Your task to perform on an android device: Open Yahoo.com Image 0: 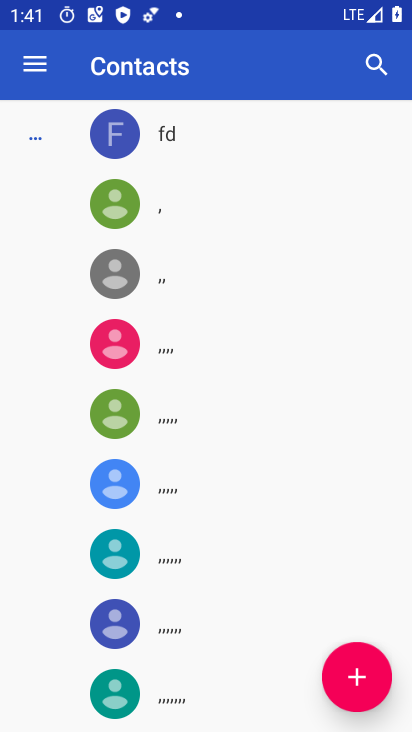
Step 0: press home button
Your task to perform on an android device: Open Yahoo.com Image 1: 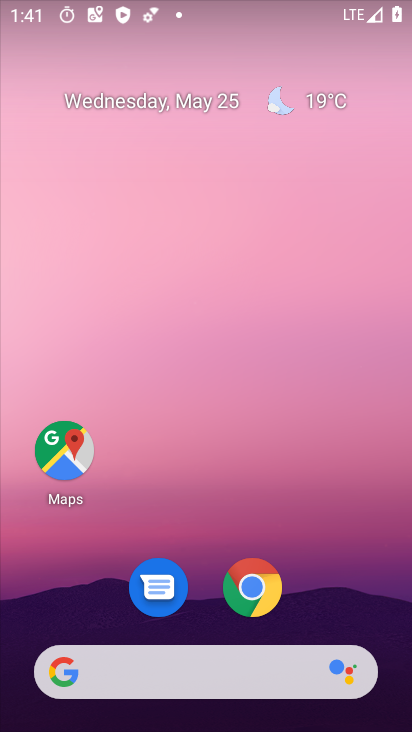
Step 1: click (259, 591)
Your task to perform on an android device: Open Yahoo.com Image 2: 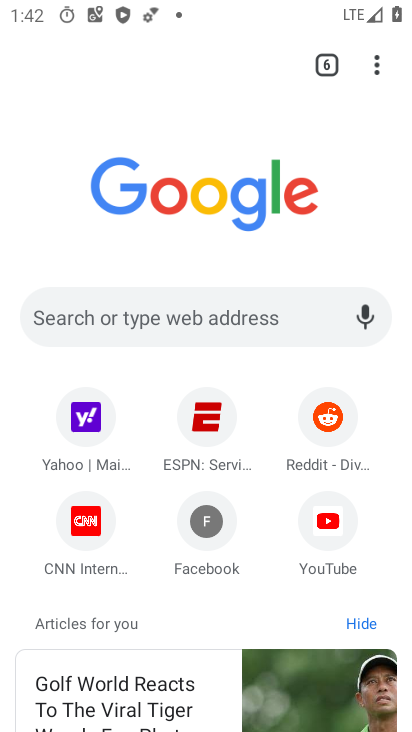
Step 2: click (87, 423)
Your task to perform on an android device: Open Yahoo.com Image 3: 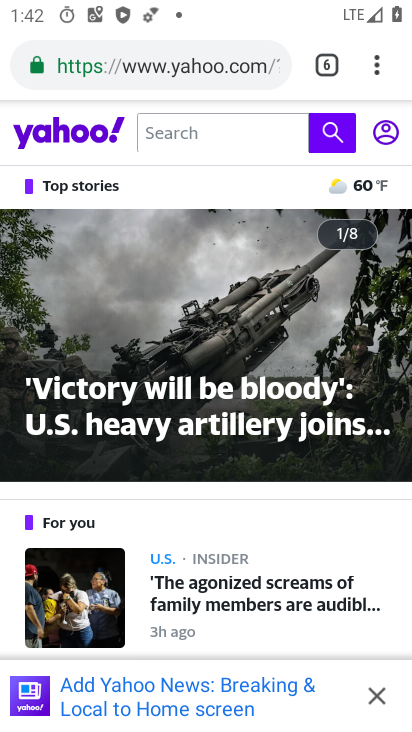
Step 3: task complete